Your task to perform on an android device: check google app version Image 0: 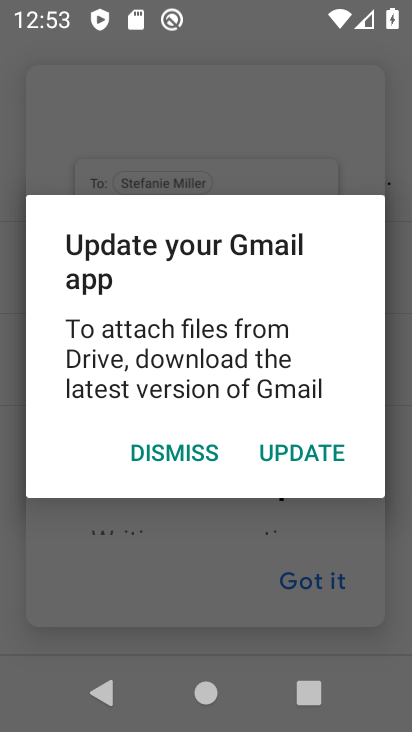
Step 0: press home button
Your task to perform on an android device: check google app version Image 1: 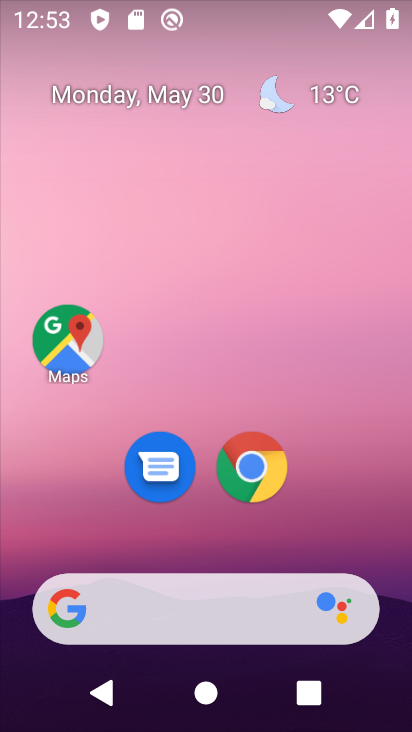
Step 1: drag from (150, 725) to (155, 50)
Your task to perform on an android device: check google app version Image 2: 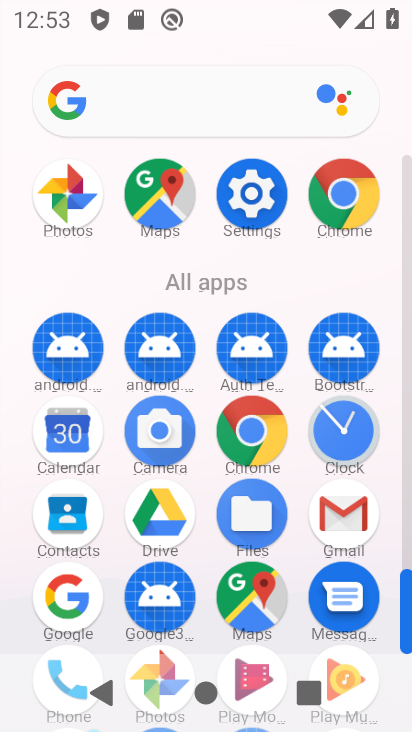
Step 2: click (75, 625)
Your task to perform on an android device: check google app version Image 3: 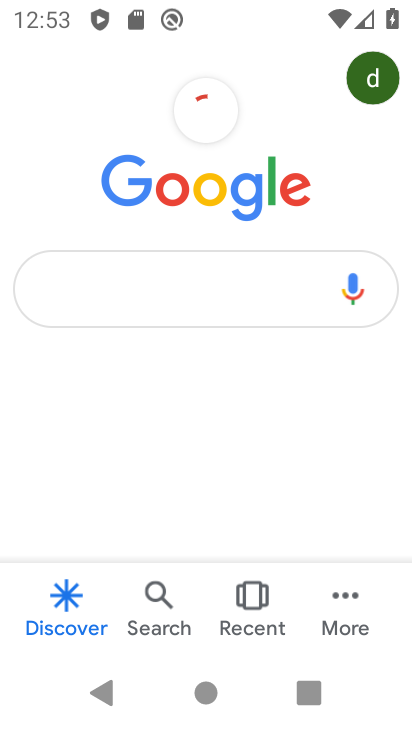
Step 3: click (344, 621)
Your task to perform on an android device: check google app version Image 4: 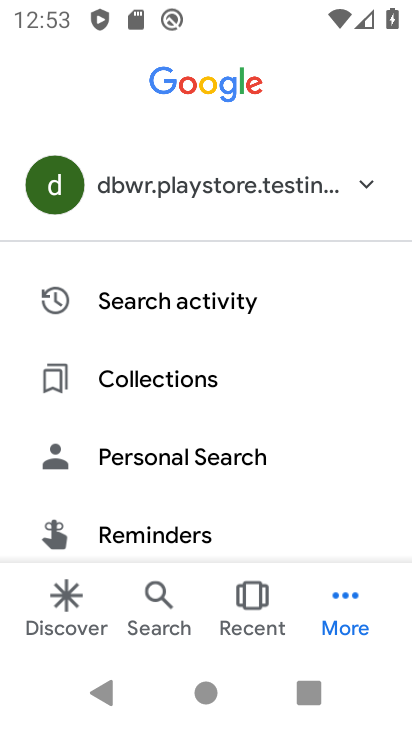
Step 4: click (344, 623)
Your task to perform on an android device: check google app version Image 5: 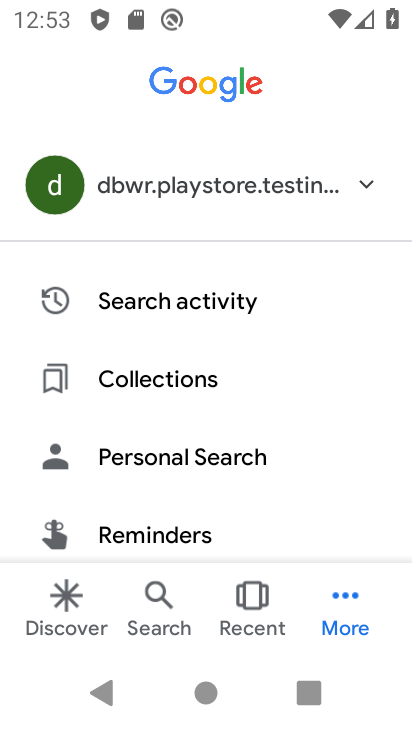
Step 5: drag from (344, 511) to (330, 191)
Your task to perform on an android device: check google app version Image 6: 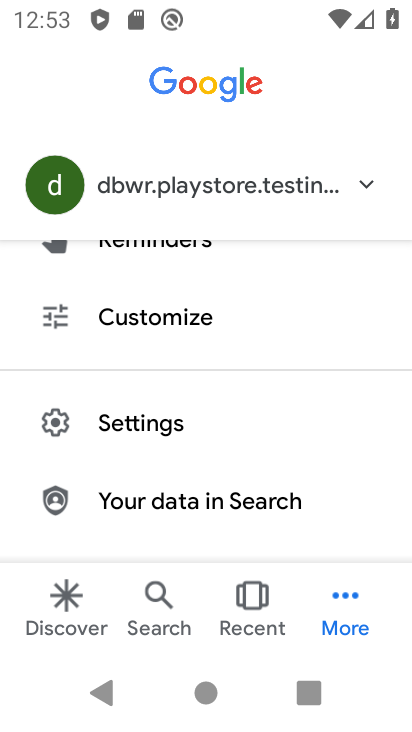
Step 6: click (155, 421)
Your task to perform on an android device: check google app version Image 7: 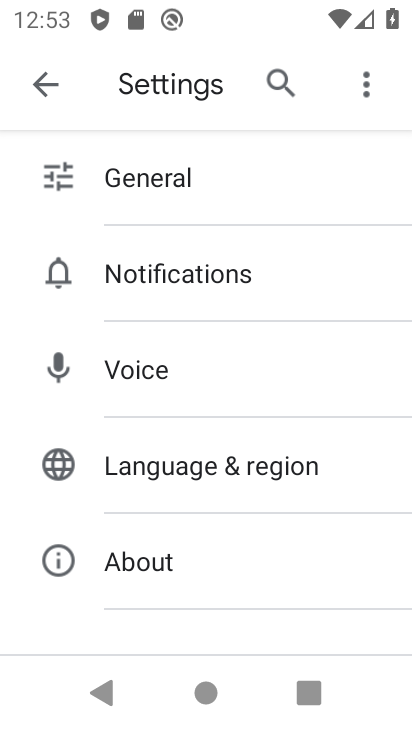
Step 7: click (154, 567)
Your task to perform on an android device: check google app version Image 8: 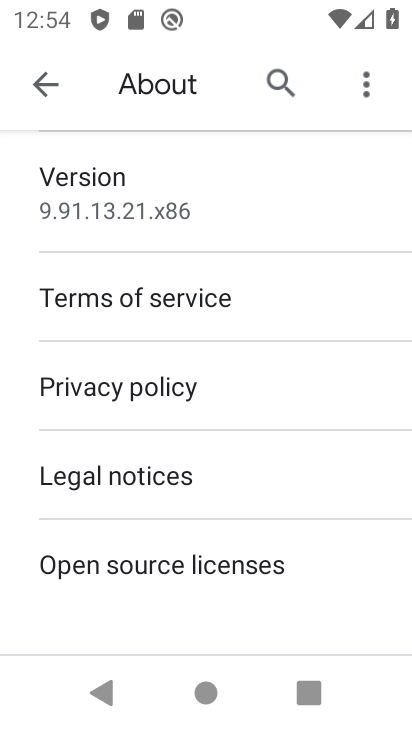
Step 8: task complete